Your task to perform on an android device: Go to Yahoo.com Image 0: 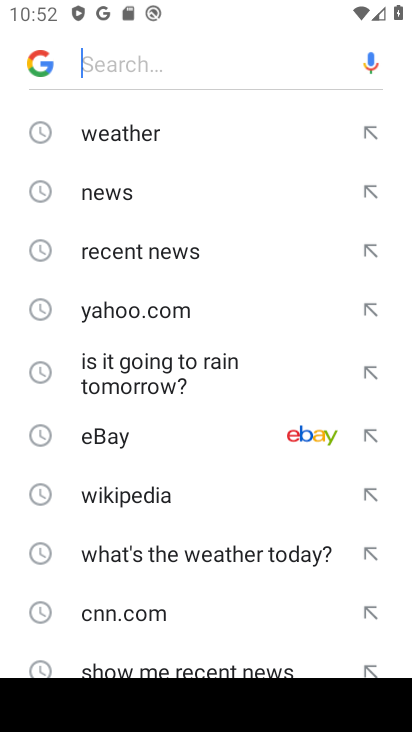
Step 0: click (150, 308)
Your task to perform on an android device: Go to Yahoo.com Image 1: 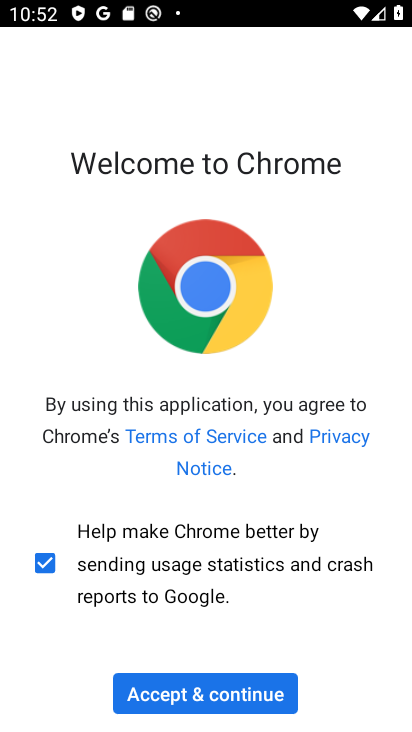
Step 1: click (203, 688)
Your task to perform on an android device: Go to Yahoo.com Image 2: 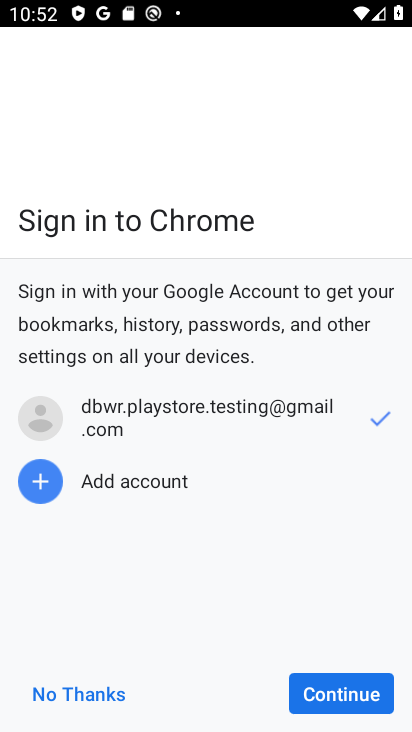
Step 2: click (328, 692)
Your task to perform on an android device: Go to Yahoo.com Image 3: 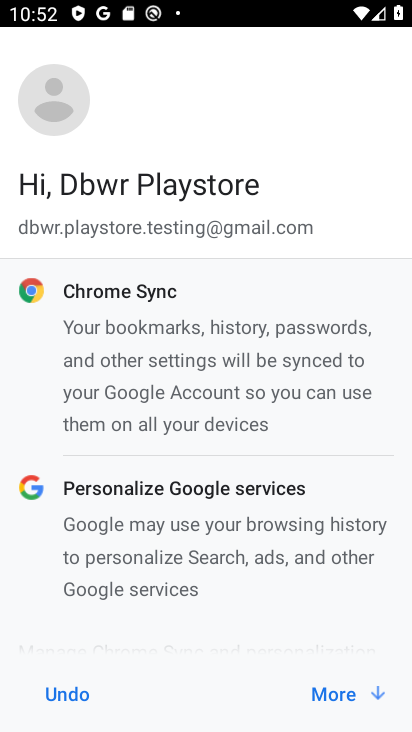
Step 3: click (370, 693)
Your task to perform on an android device: Go to Yahoo.com Image 4: 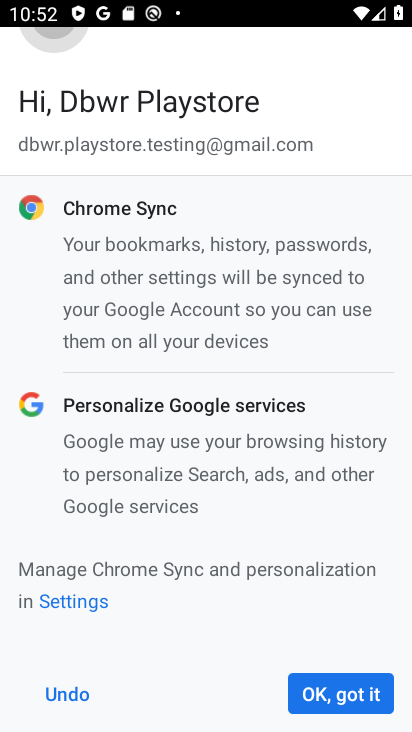
Step 4: click (334, 693)
Your task to perform on an android device: Go to Yahoo.com Image 5: 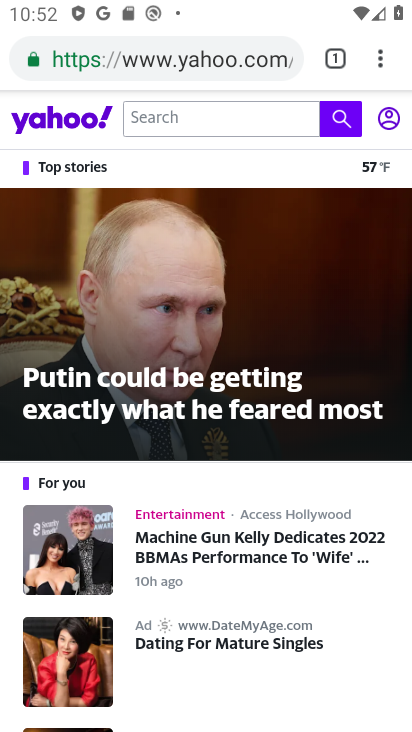
Step 5: task complete